Your task to perform on an android device: Go to Yahoo.com Image 0: 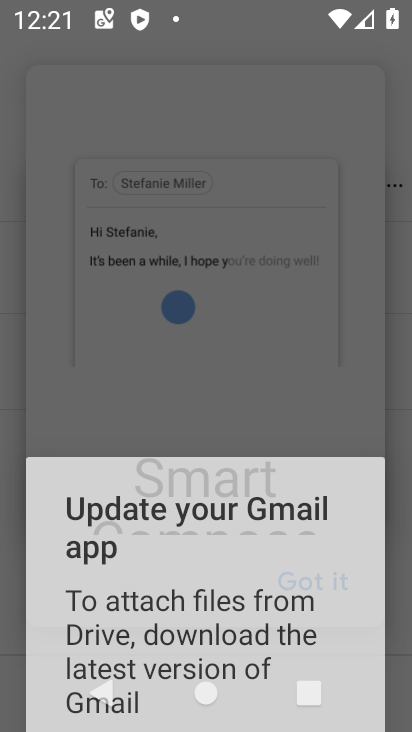
Step 0: press back button
Your task to perform on an android device: Go to Yahoo.com Image 1: 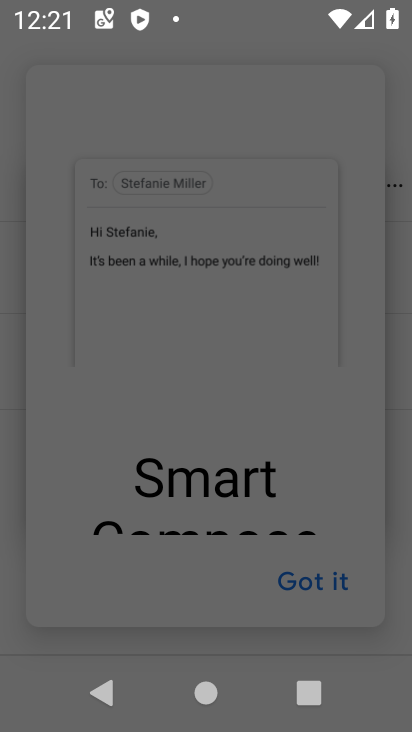
Step 1: press home button
Your task to perform on an android device: Go to Yahoo.com Image 2: 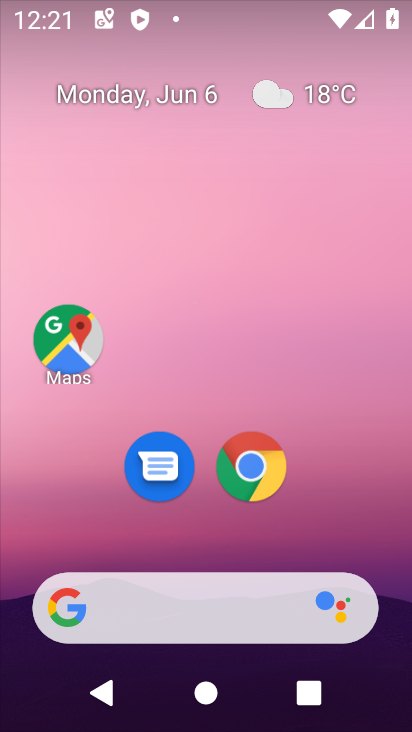
Step 2: drag from (333, 507) to (231, 38)
Your task to perform on an android device: Go to Yahoo.com Image 3: 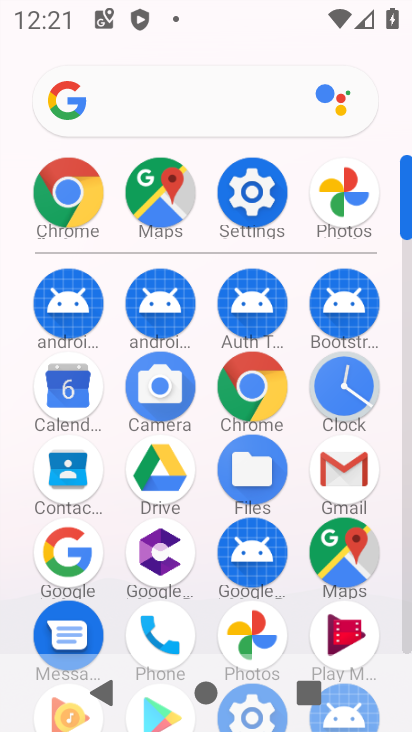
Step 3: click (258, 381)
Your task to perform on an android device: Go to Yahoo.com Image 4: 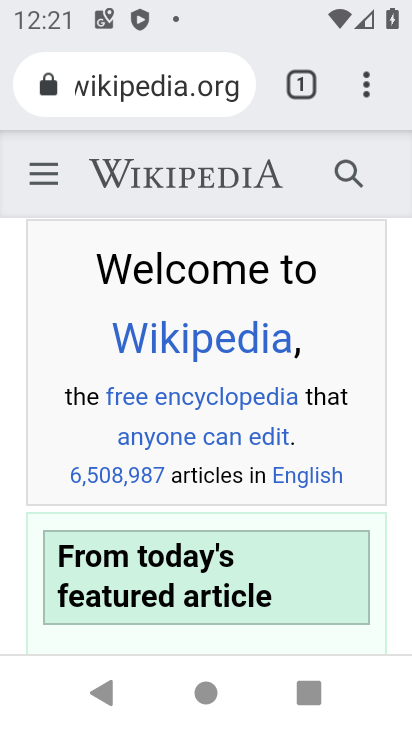
Step 4: click (145, 79)
Your task to perform on an android device: Go to Yahoo.com Image 5: 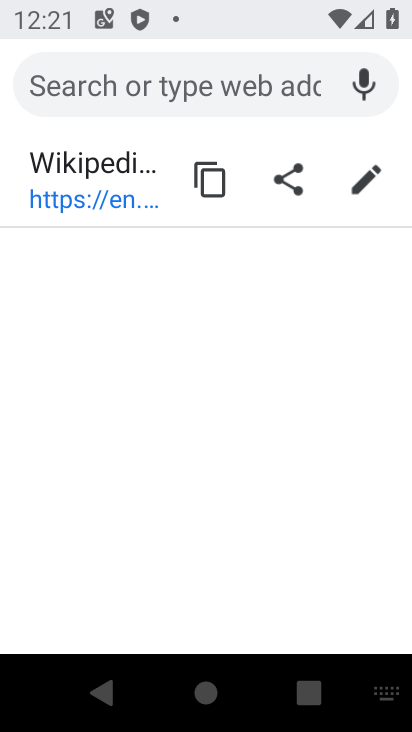
Step 5: type "Yahoo.com"
Your task to perform on an android device: Go to Yahoo.com Image 6: 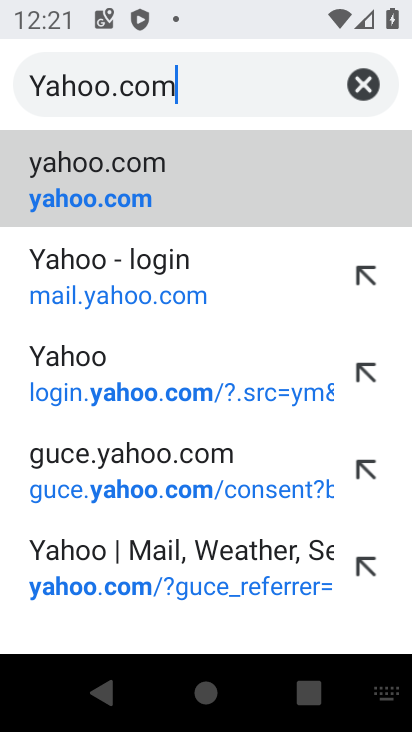
Step 6: type ""
Your task to perform on an android device: Go to Yahoo.com Image 7: 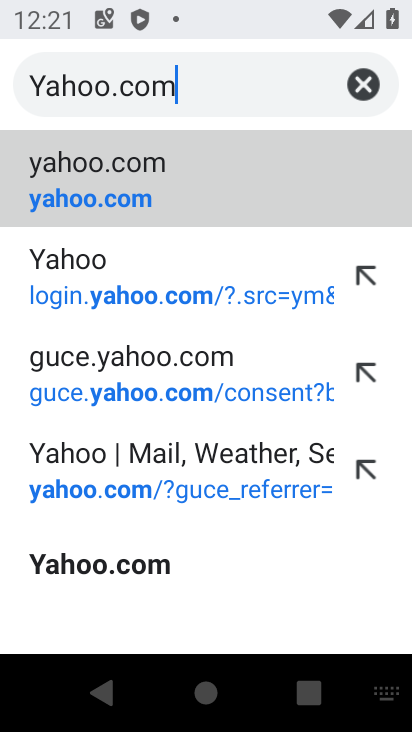
Step 7: click (128, 180)
Your task to perform on an android device: Go to Yahoo.com Image 8: 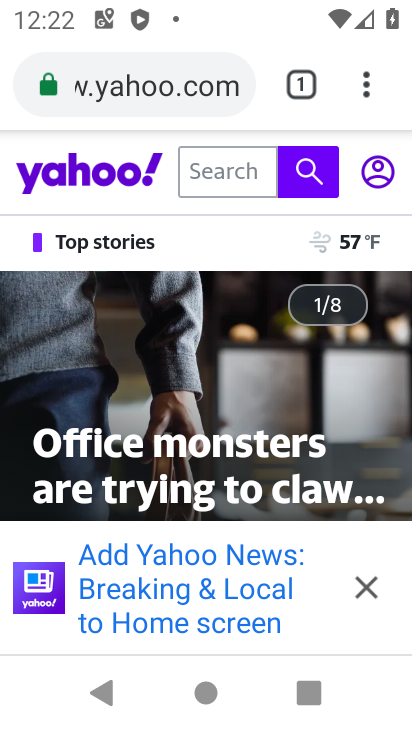
Step 8: task complete